Your task to perform on an android device: open app "Instagram" (install if not already installed) Image 0: 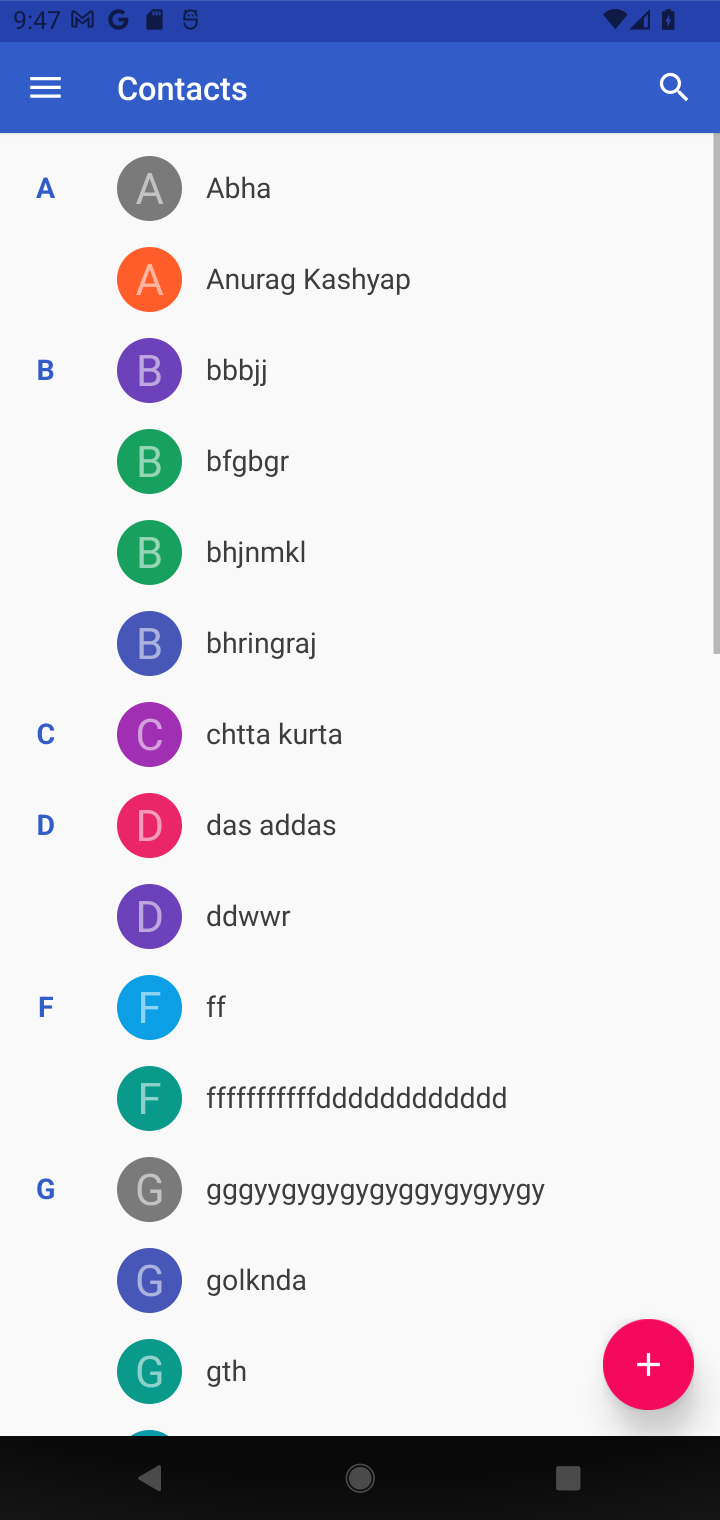
Step 0: press home button
Your task to perform on an android device: open app "Instagram" (install if not already installed) Image 1: 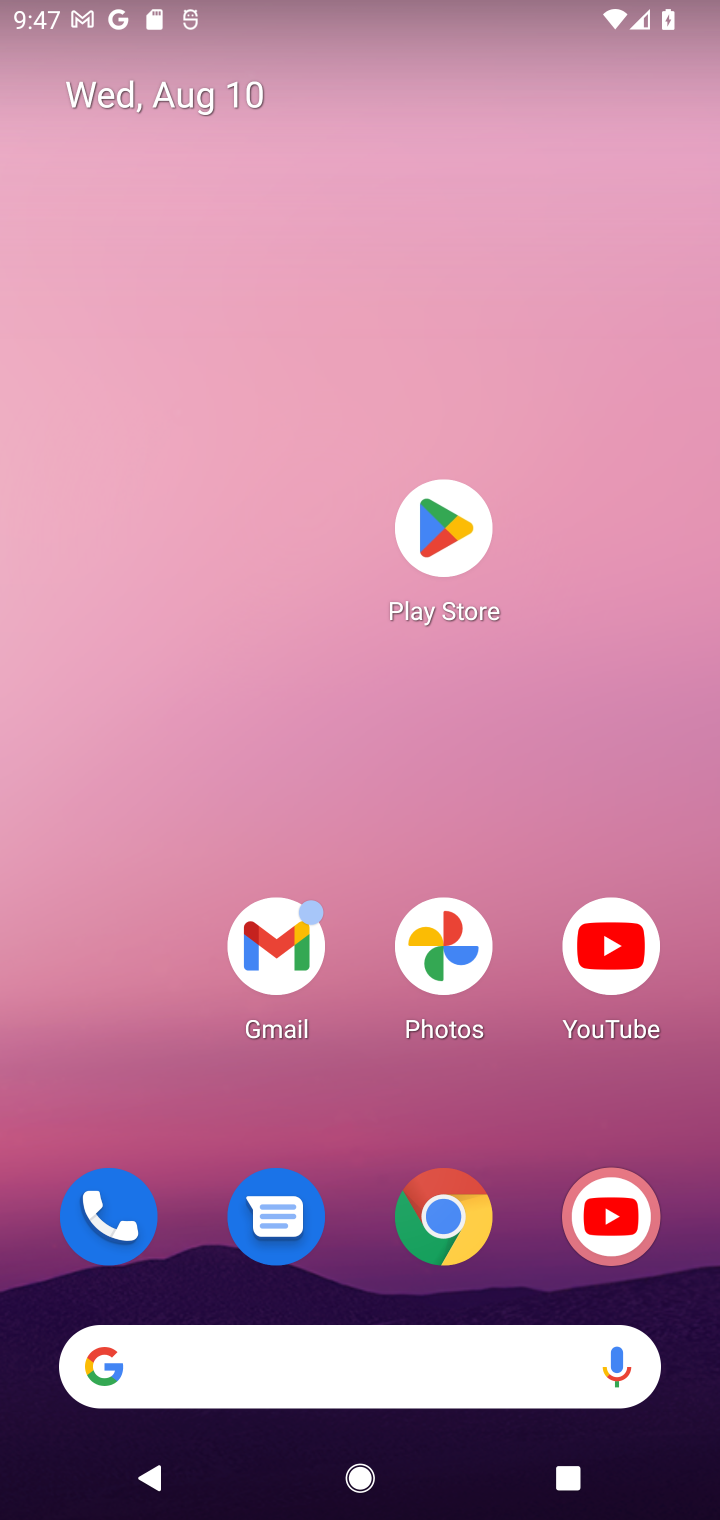
Step 1: click (446, 529)
Your task to perform on an android device: open app "Instagram" (install if not already installed) Image 2: 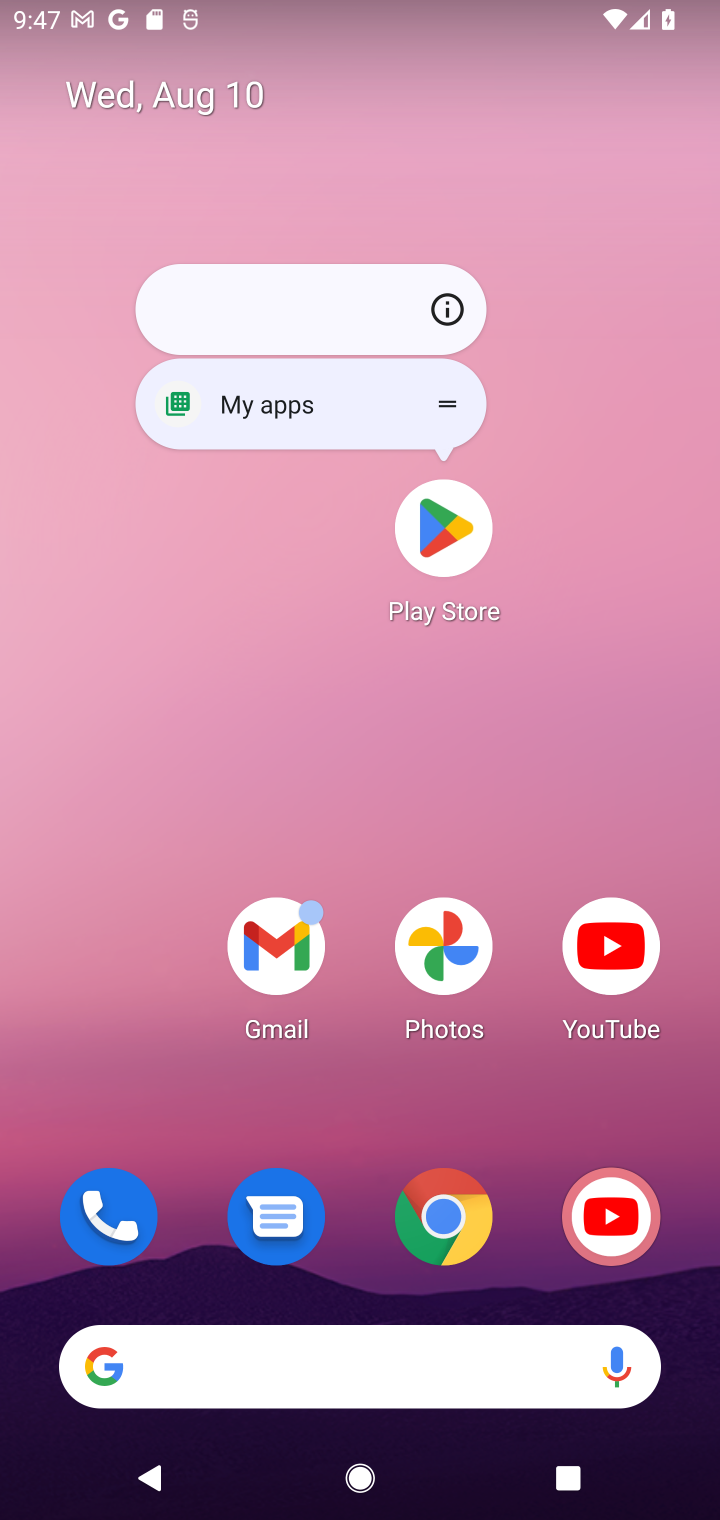
Step 2: click (446, 531)
Your task to perform on an android device: open app "Instagram" (install if not already installed) Image 3: 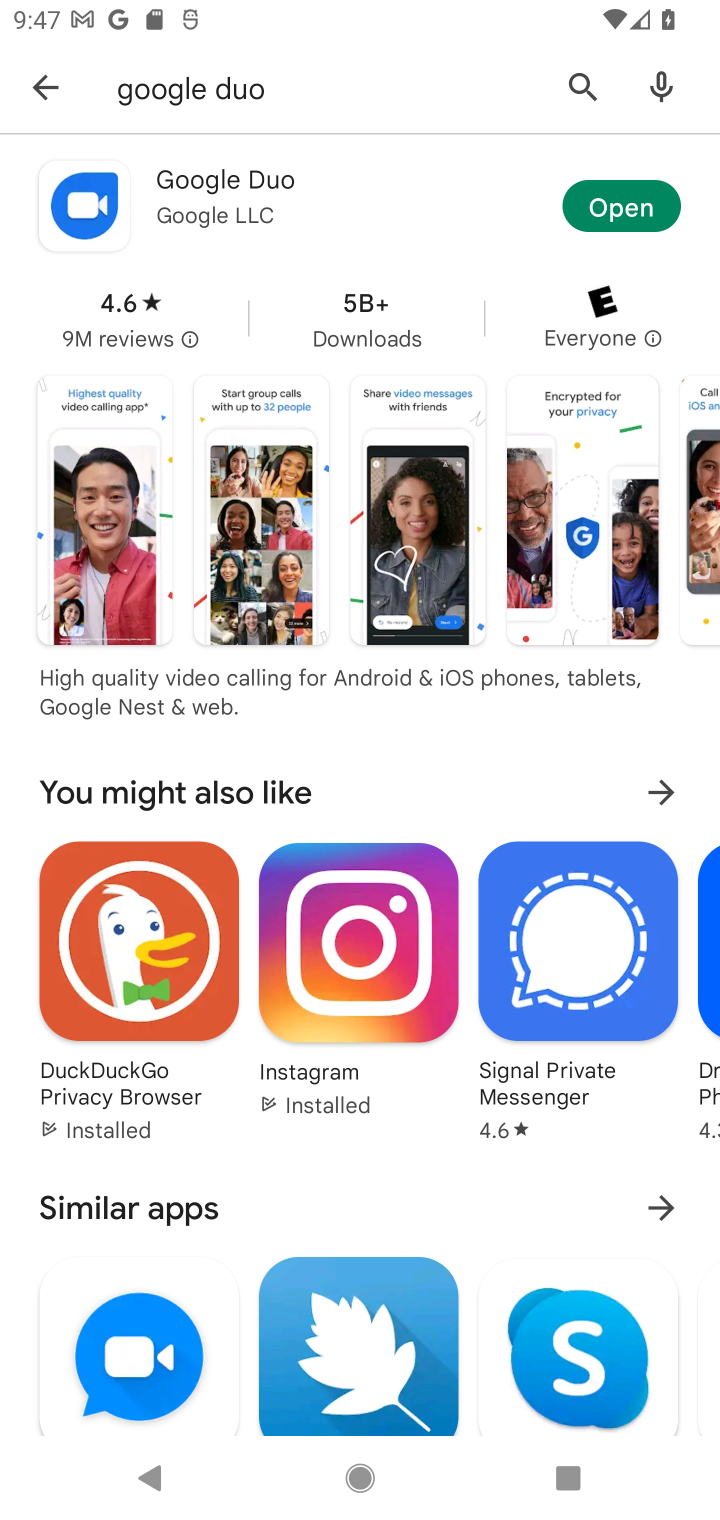
Step 3: click (574, 83)
Your task to perform on an android device: open app "Instagram" (install if not already installed) Image 4: 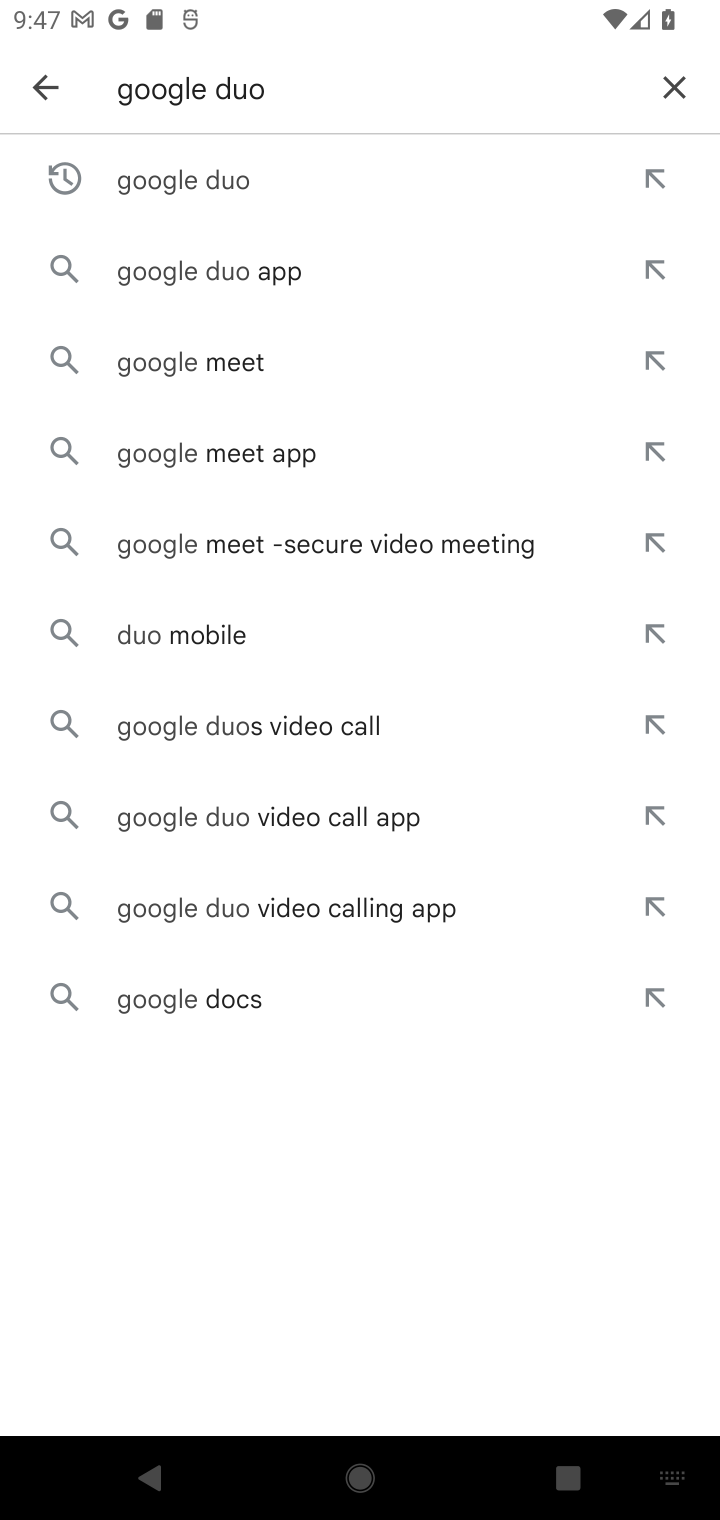
Step 4: click (670, 92)
Your task to perform on an android device: open app "Instagram" (install if not already installed) Image 5: 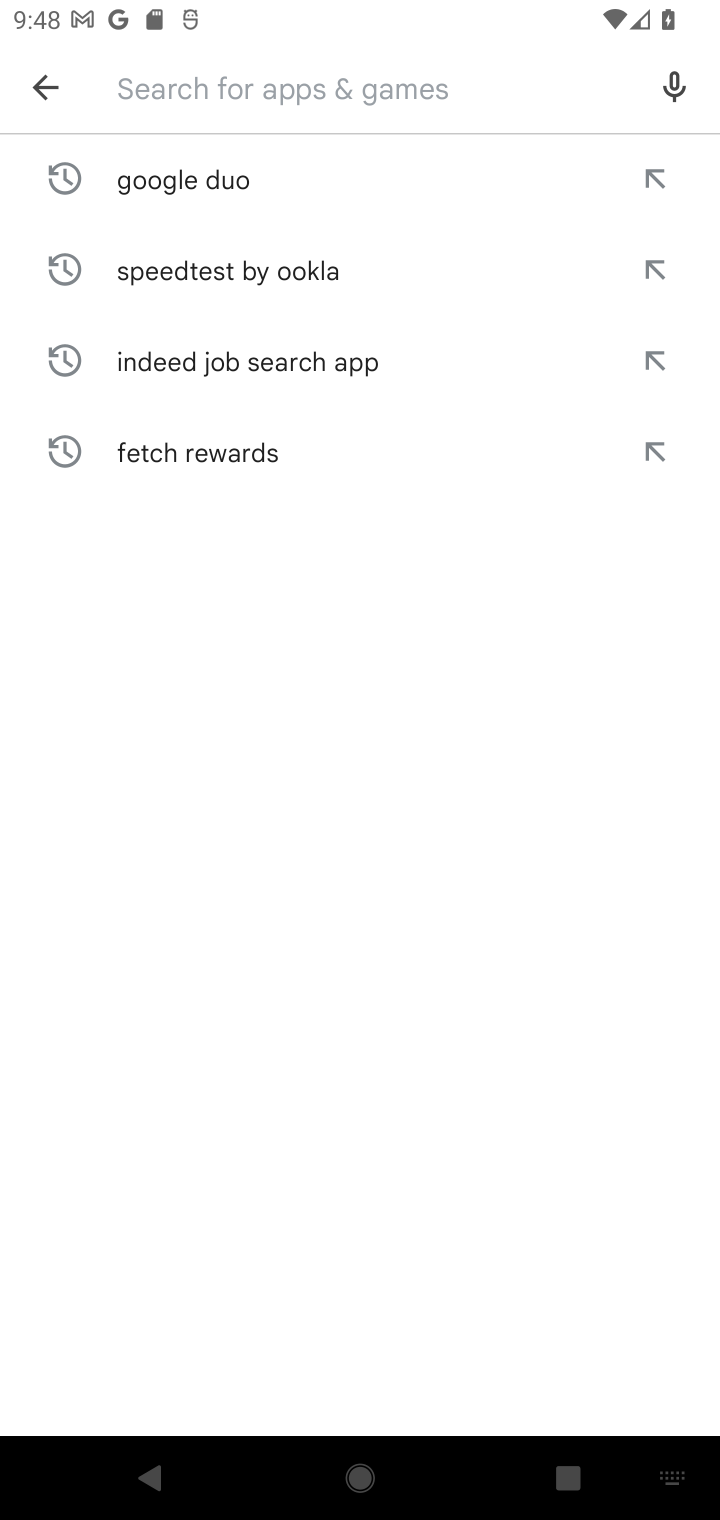
Step 5: type "Instagram"
Your task to perform on an android device: open app "Instagram" (install if not already installed) Image 6: 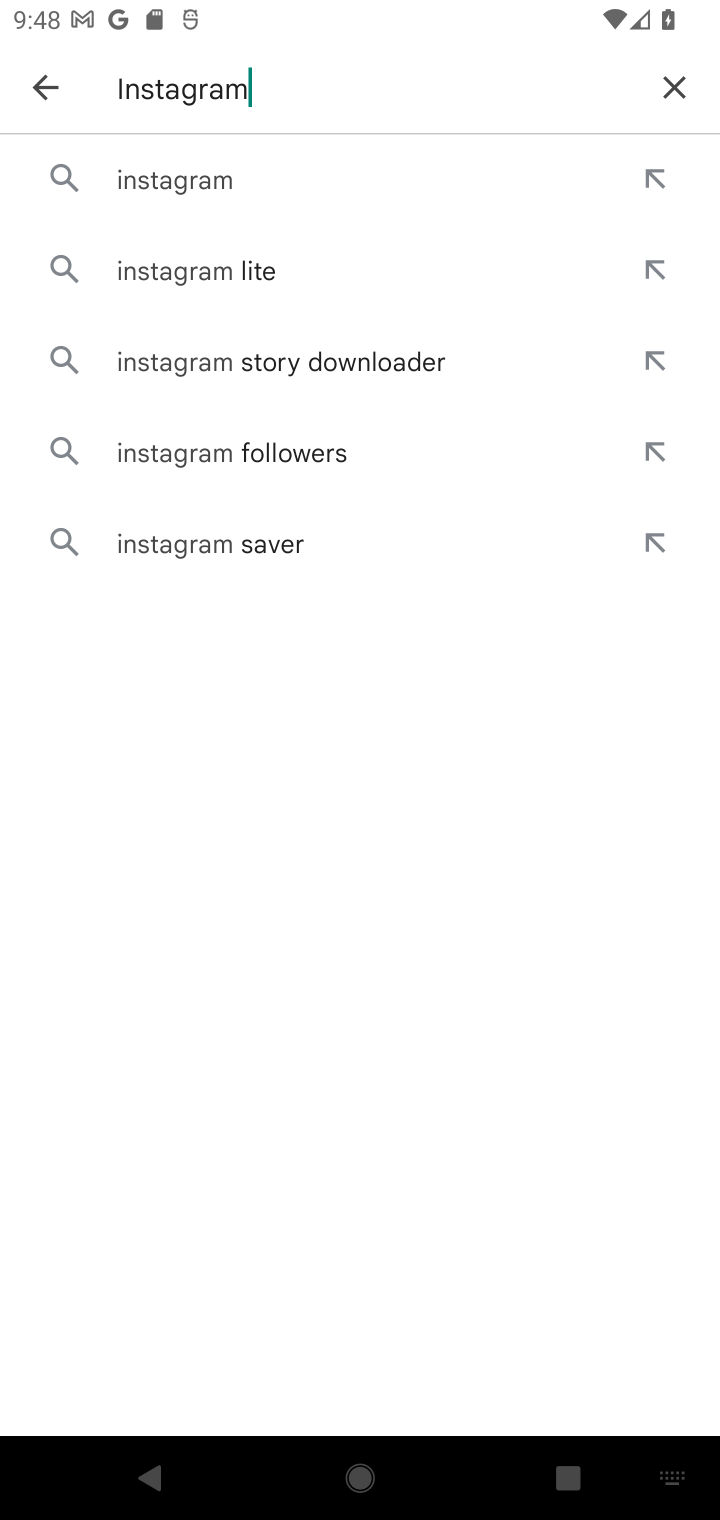
Step 6: click (209, 185)
Your task to perform on an android device: open app "Instagram" (install if not already installed) Image 7: 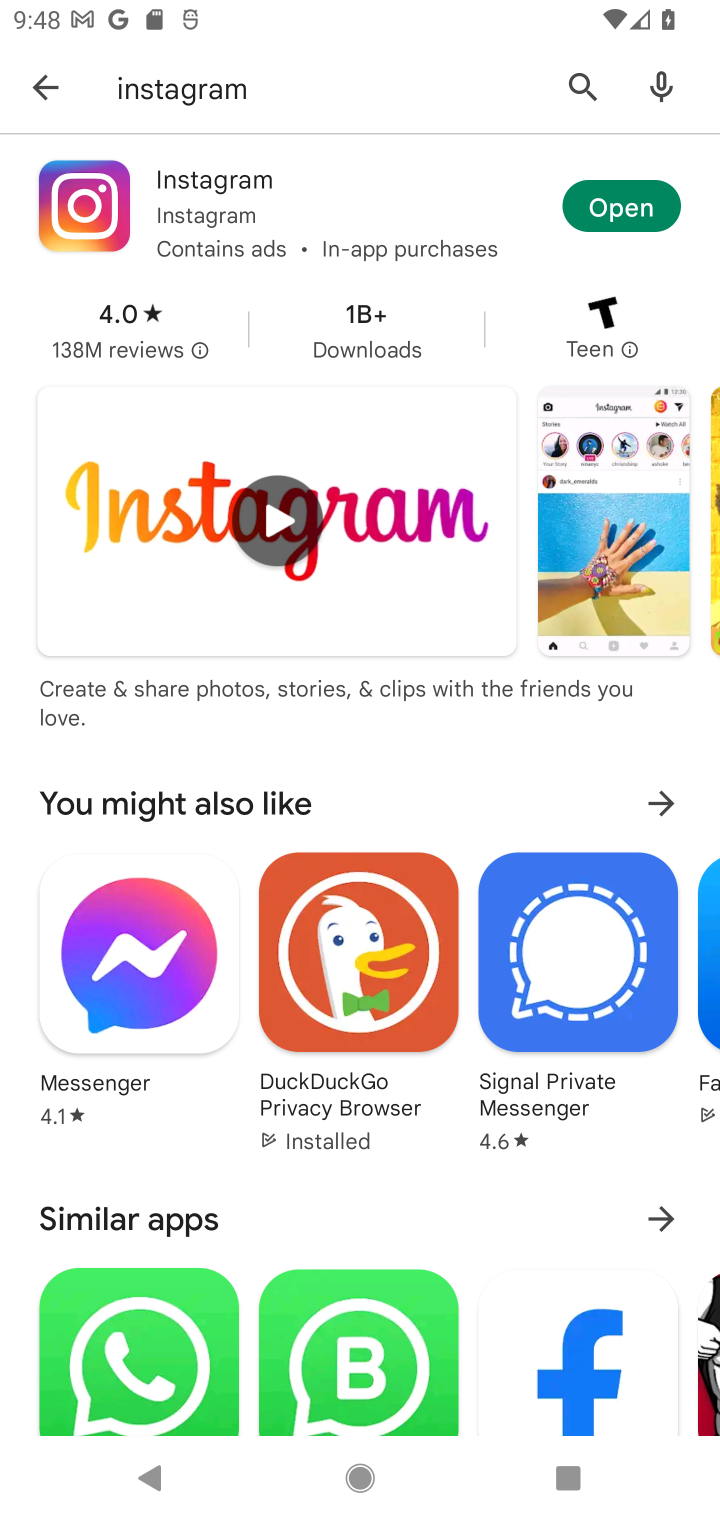
Step 7: click (634, 204)
Your task to perform on an android device: open app "Instagram" (install if not already installed) Image 8: 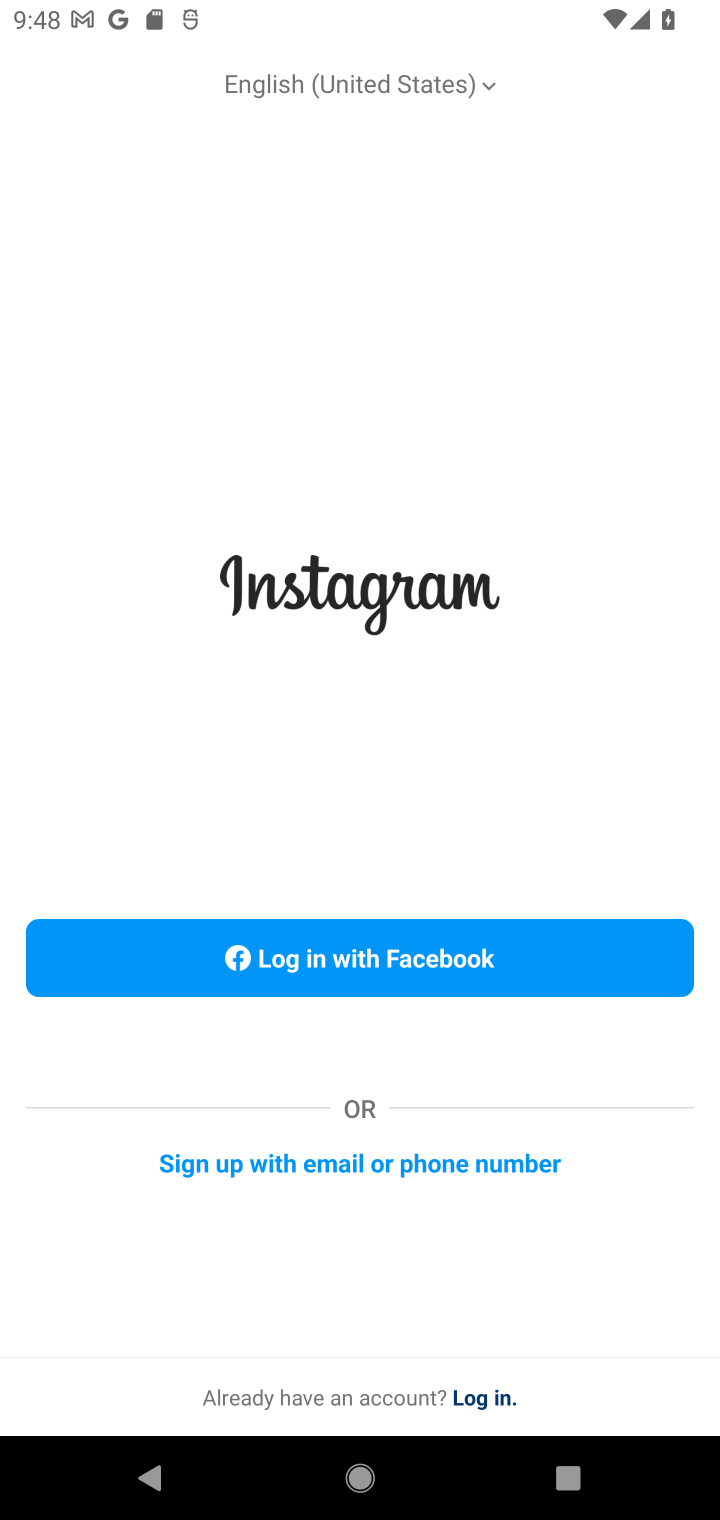
Step 8: task complete